Your task to perform on an android device: Open Google Maps Image 0: 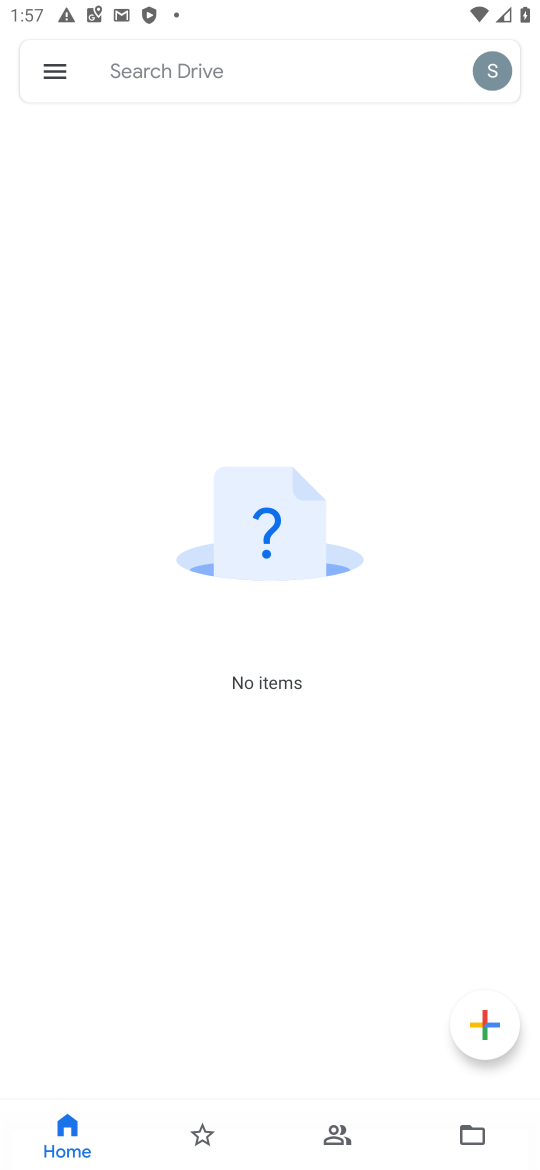
Step 0: press home button
Your task to perform on an android device: Open Google Maps Image 1: 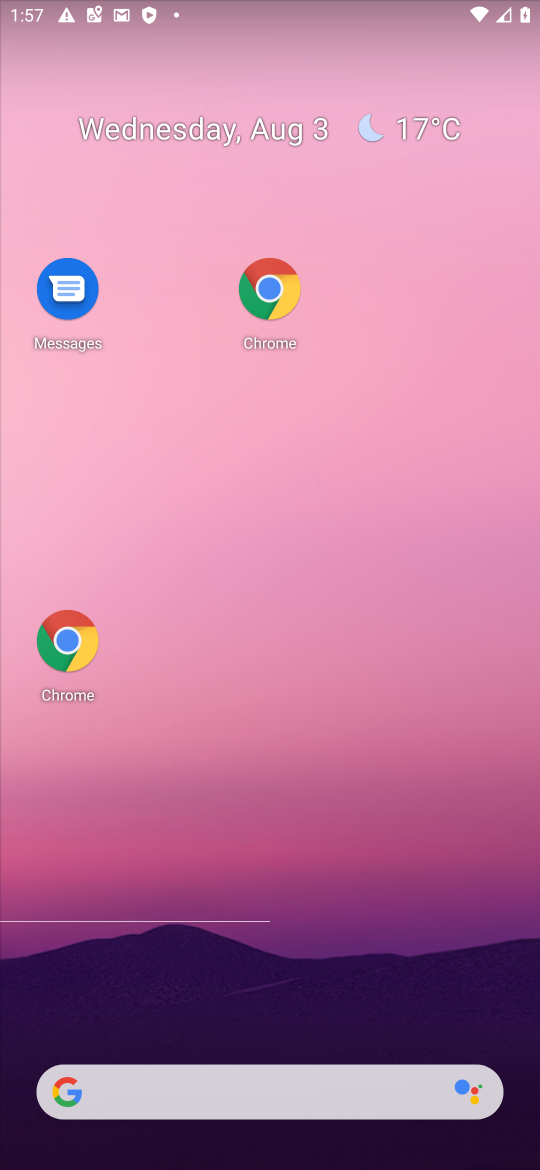
Step 1: drag from (408, 985) to (322, 6)
Your task to perform on an android device: Open Google Maps Image 2: 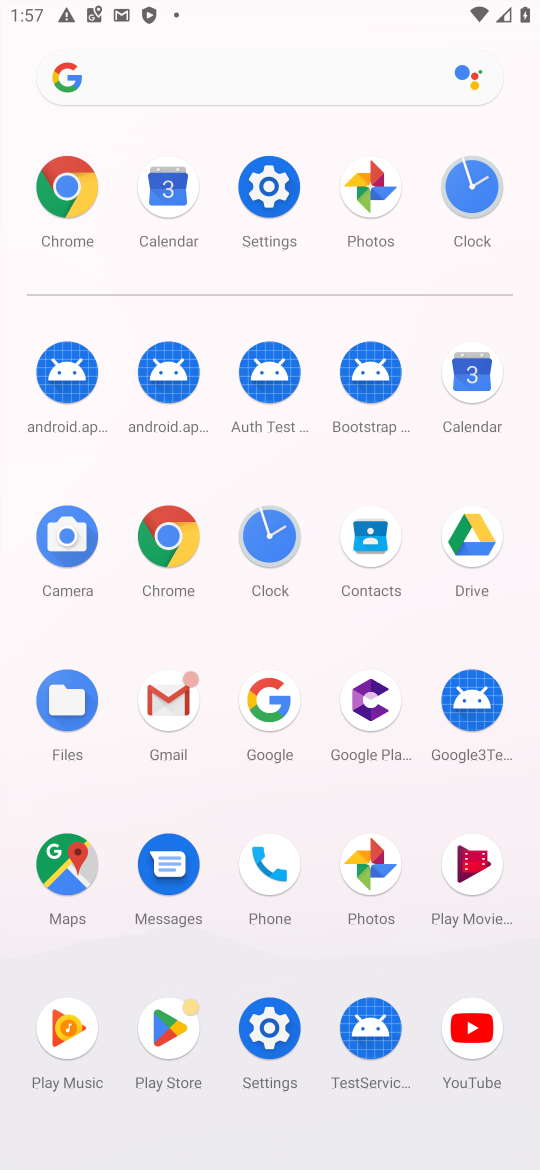
Step 2: click (79, 883)
Your task to perform on an android device: Open Google Maps Image 3: 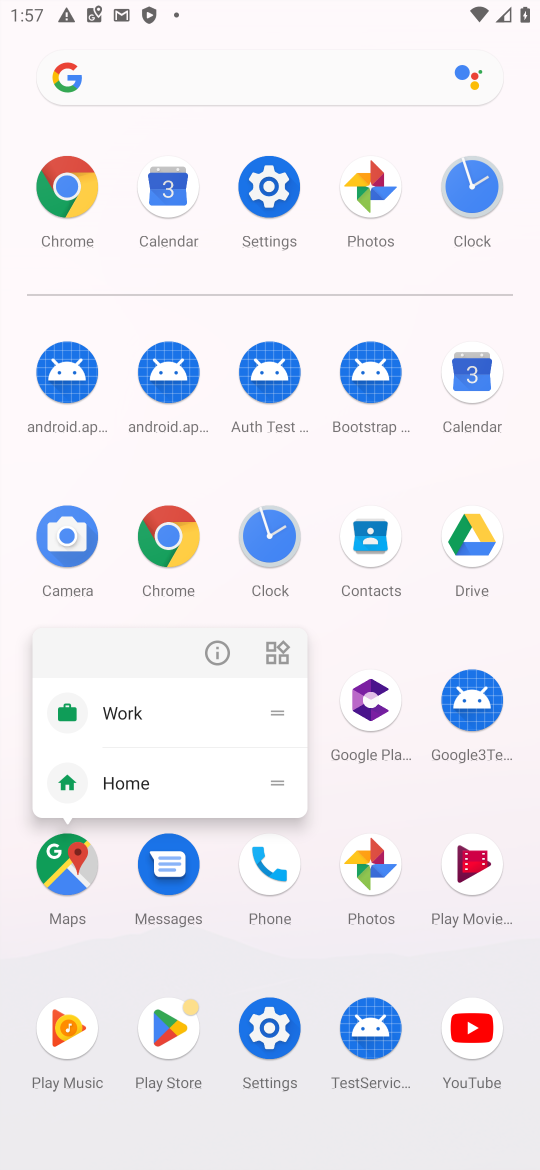
Step 3: click (79, 883)
Your task to perform on an android device: Open Google Maps Image 4: 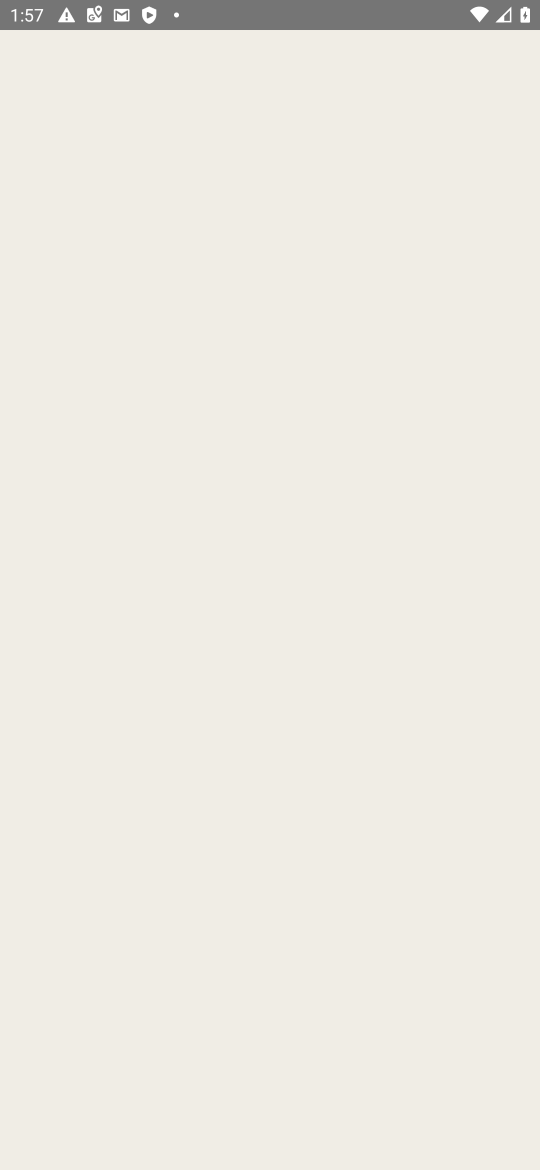
Step 4: task complete